Your task to perform on an android device: Open ESPN.com Image 0: 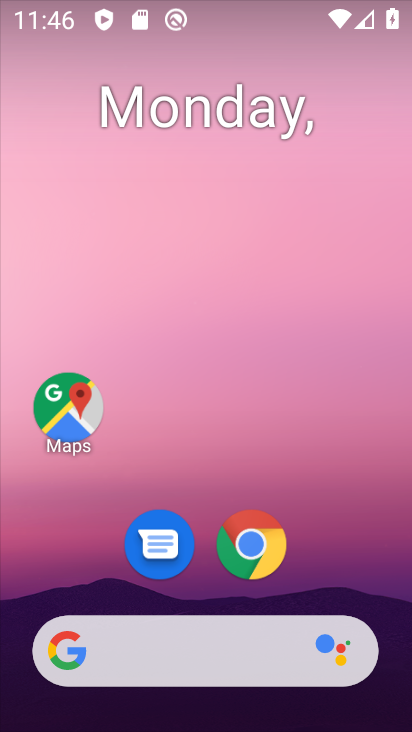
Step 0: click (273, 538)
Your task to perform on an android device: Open ESPN.com Image 1: 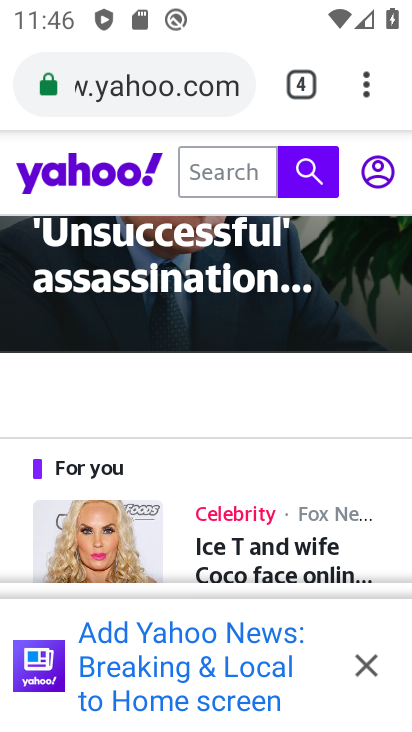
Step 1: click (301, 94)
Your task to perform on an android device: Open ESPN.com Image 2: 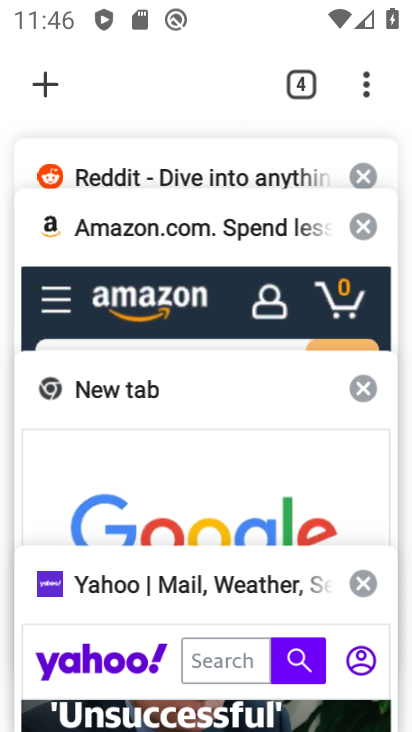
Step 2: click (34, 80)
Your task to perform on an android device: Open ESPN.com Image 3: 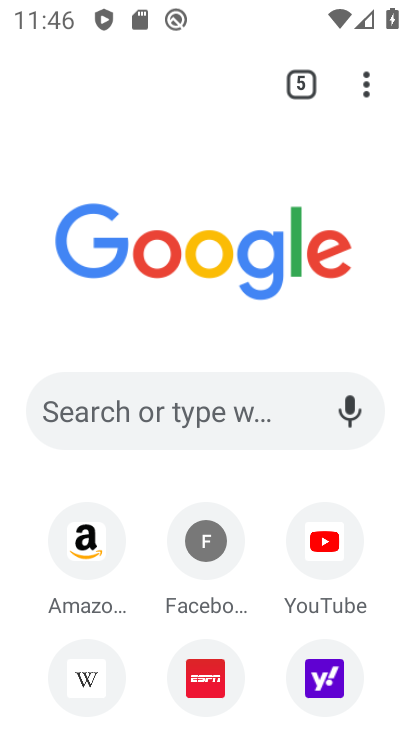
Step 3: click (199, 677)
Your task to perform on an android device: Open ESPN.com Image 4: 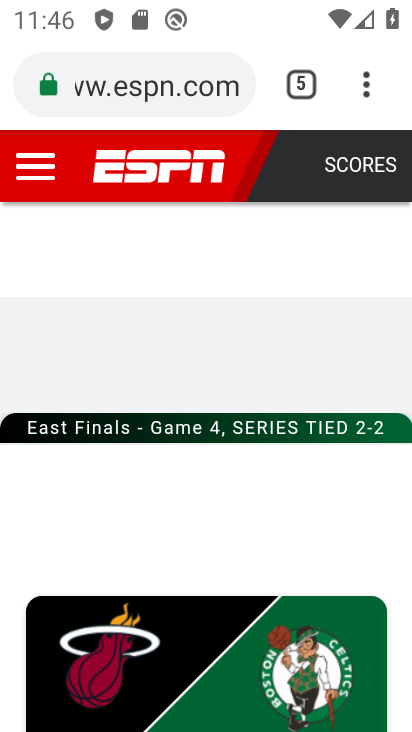
Step 4: task complete